Your task to perform on an android device: turn on wifi Image 0: 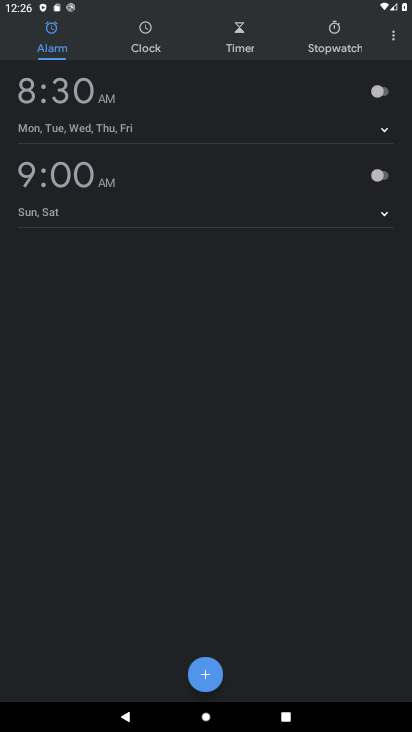
Step 0: press home button
Your task to perform on an android device: turn on wifi Image 1: 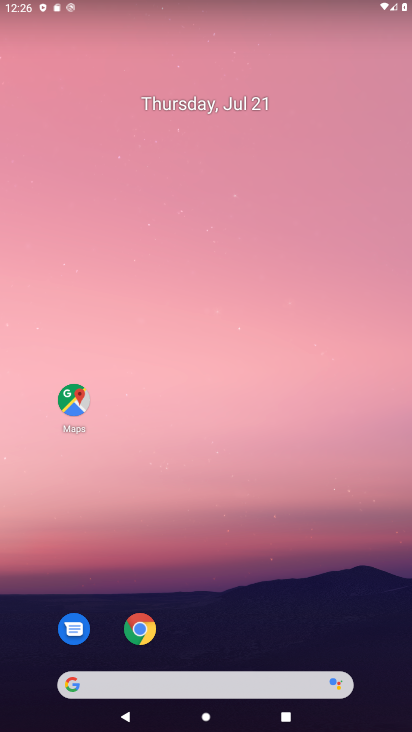
Step 1: drag from (368, 655) to (273, 57)
Your task to perform on an android device: turn on wifi Image 2: 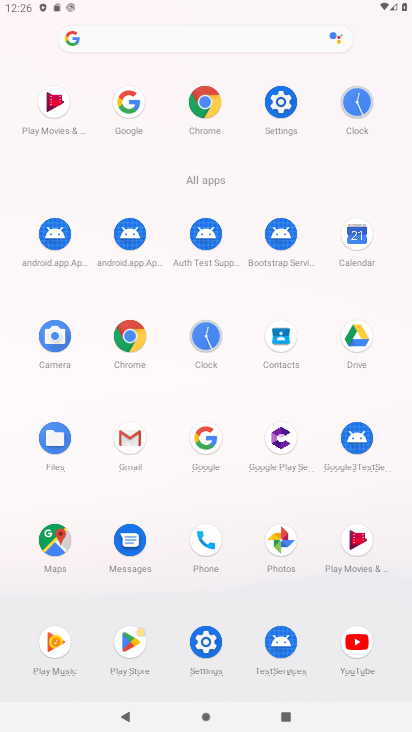
Step 2: click (280, 100)
Your task to perform on an android device: turn on wifi Image 3: 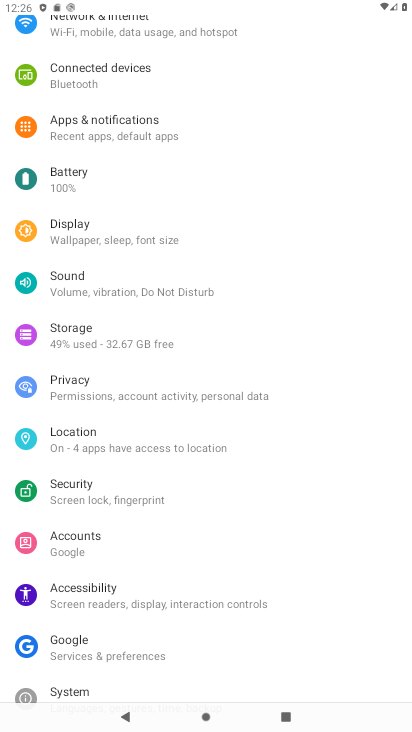
Step 3: drag from (222, 50) to (98, 562)
Your task to perform on an android device: turn on wifi Image 4: 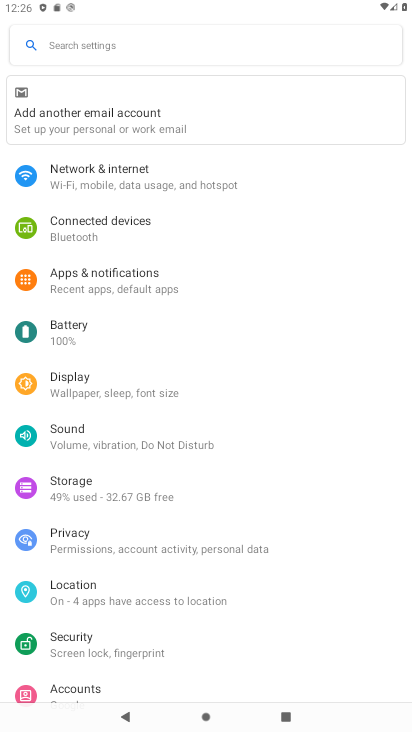
Step 4: click (100, 176)
Your task to perform on an android device: turn on wifi Image 5: 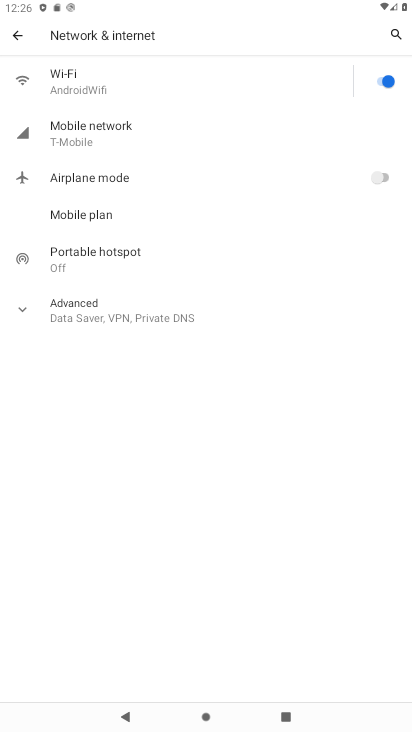
Step 5: task complete